Your task to perform on an android device: Do I have any events tomorrow? Image 0: 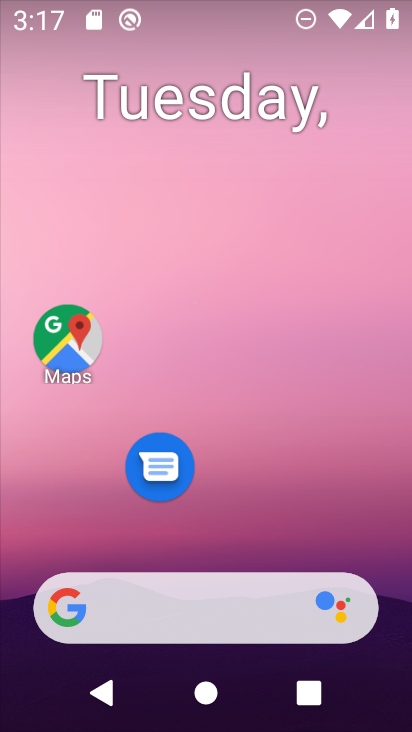
Step 0: drag from (279, 515) to (305, 182)
Your task to perform on an android device: Do I have any events tomorrow? Image 1: 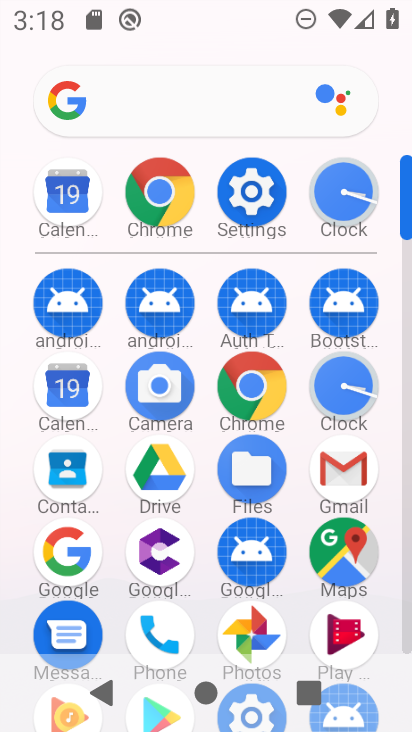
Step 1: click (63, 397)
Your task to perform on an android device: Do I have any events tomorrow? Image 2: 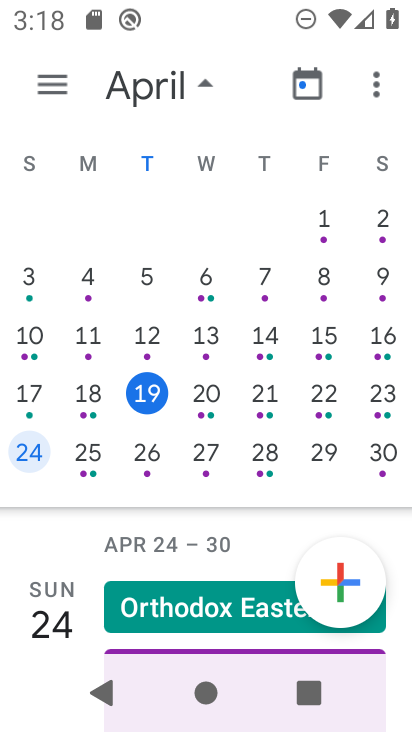
Step 2: click (207, 410)
Your task to perform on an android device: Do I have any events tomorrow? Image 3: 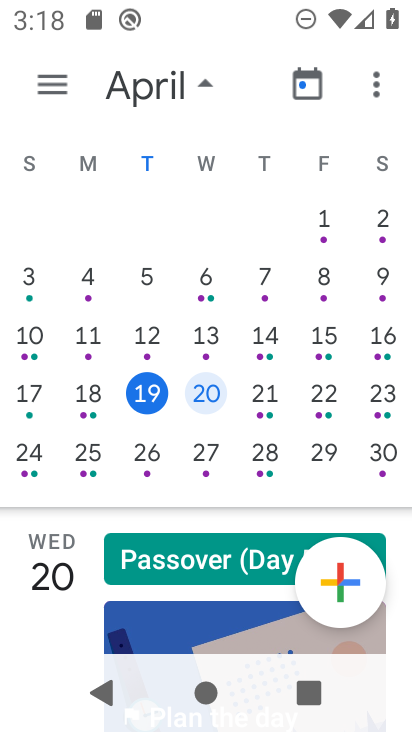
Step 3: task complete